Your task to perform on an android device: Turn off the flashlight Image 0: 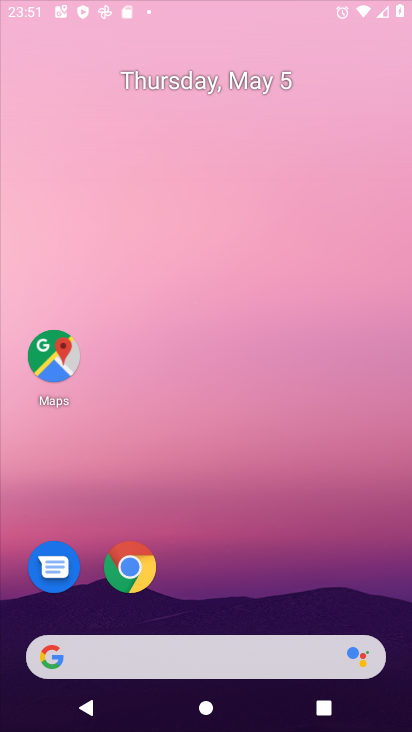
Step 0: click (177, 203)
Your task to perform on an android device: Turn off the flashlight Image 1: 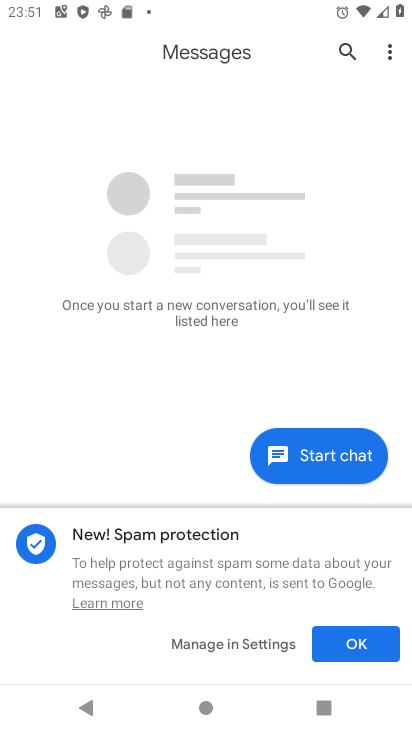
Step 1: press back button
Your task to perform on an android device: Turn off the flashlight Image 2: 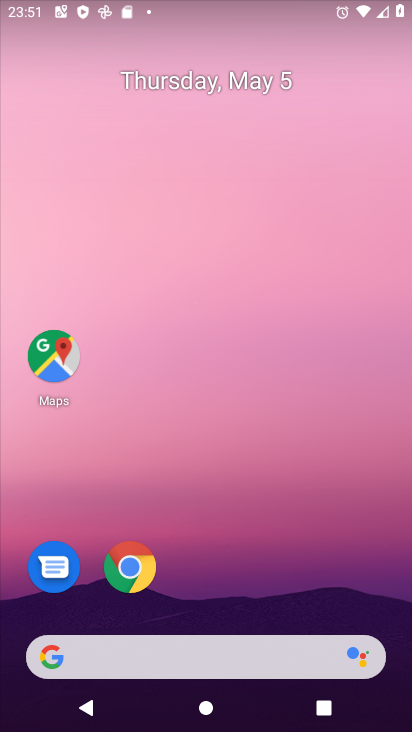
Step 2: drag from (219, 563) to (185, 136)
Your task to perform on an android device: Turn off the flashlight Image 3: 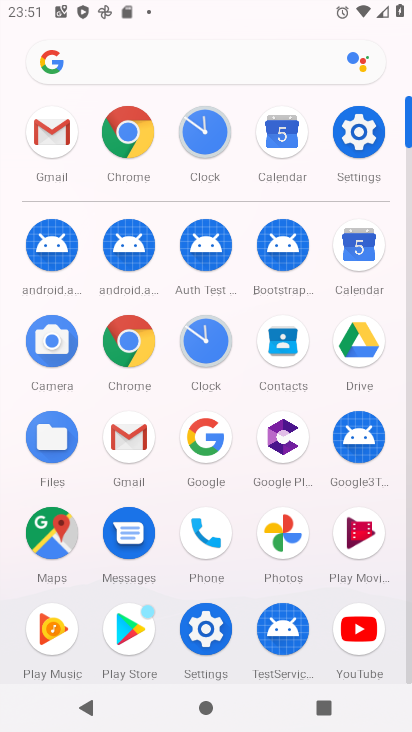
Step 3: click (345, 139)
Your task to perform on an android device: Turn off the flashlight Image 4: 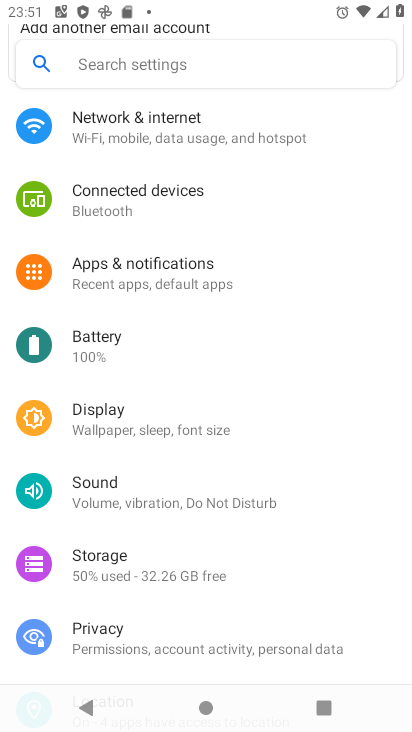
Step 4: task complete